Your task to perform on an android device: empty trash in the gmail app Image 0: 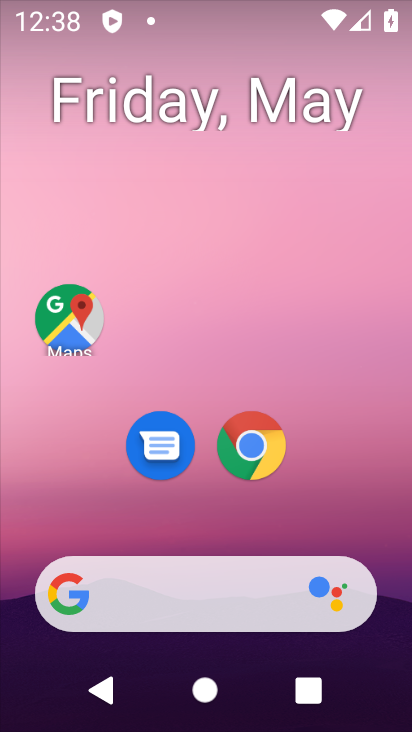
Step 0: drag from (396, 603) to (359, 76)
Your task to perform on an android device: empty trash in the gmail app Image 1: 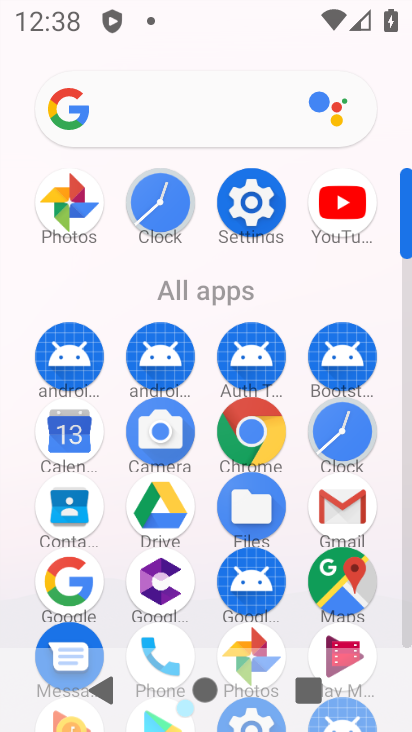
Step 1: click (407, 627)
Your task to perform on an android device: empty trash in the gmail app Image 2: 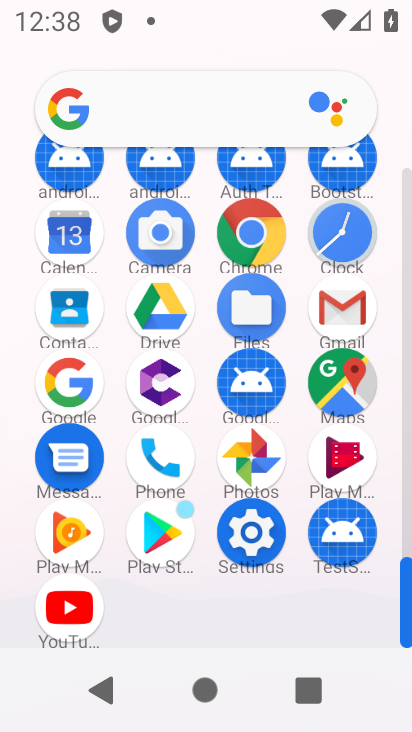
Step 2: click (340, 304)
Your task to perform on an android device: empty trash in the gmail app Image 3: 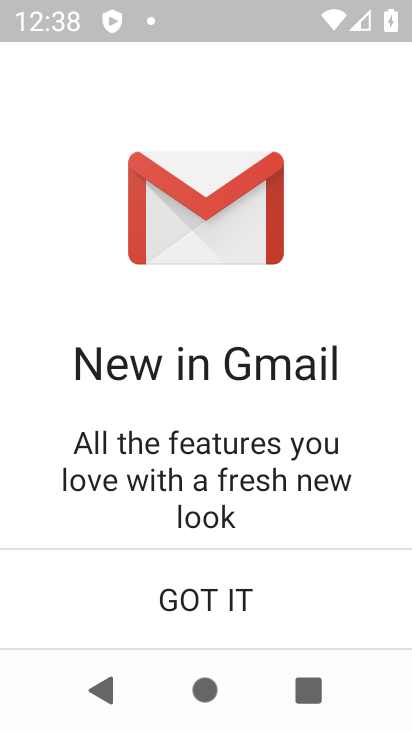
Step 3: click (182, 615)
Your task to perform on an android device: empty trash in the gmail app Image 4: 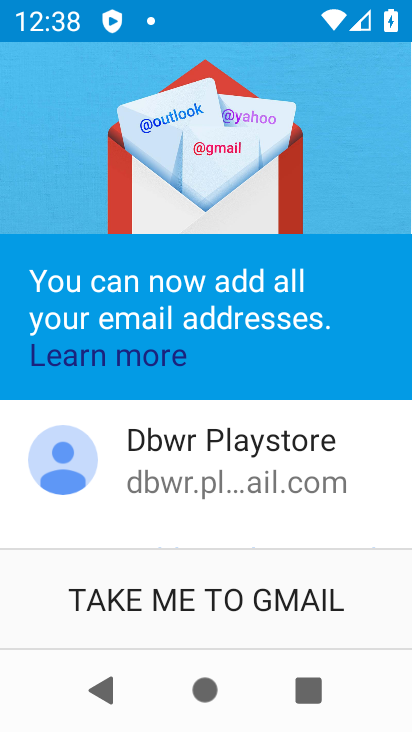
Step 4: click (182, 607)
Your task to perform on an android device: empty trash in the gmail app Image 5: 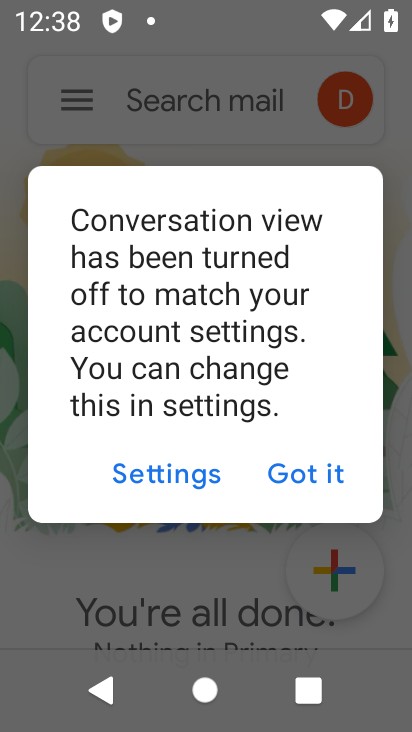
Step 5: click (311, 469)
Your task to perform on an android device: empty trash in the gmail app Image 6: 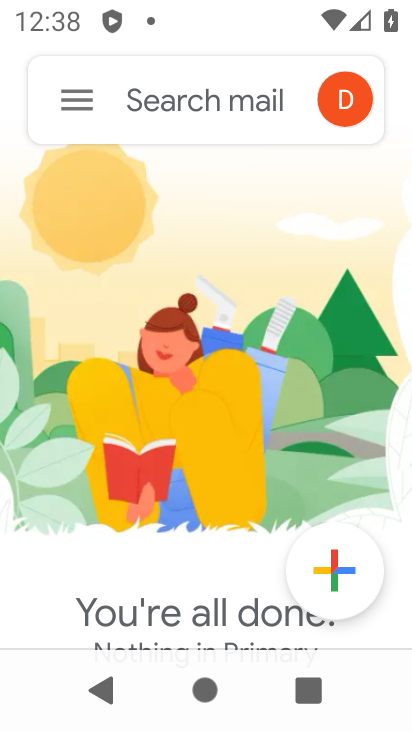
Step 6: click (68, 90)
Your task to perform on an android device: empty trash in the gmail app Image 7: 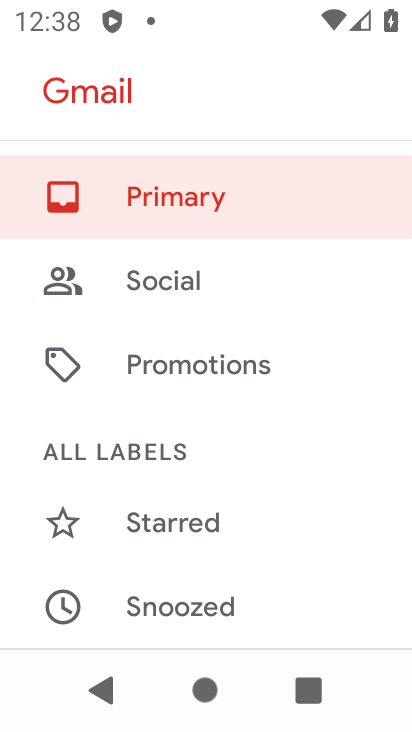
Step 7: drag from (296, 536) to (320, 78)
Your task to perform on an android device: empty trash in the gmail app Image 8: 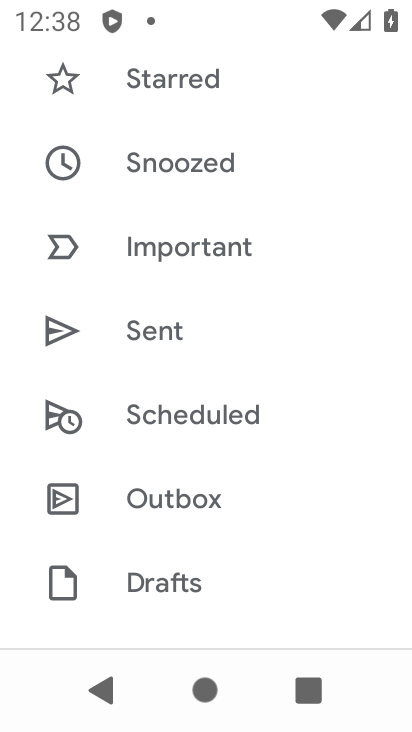
Step 8: drag from (277, 558) to (302, 115)
Your task to perform on an android device: empty trash in the gmail app Image 9: 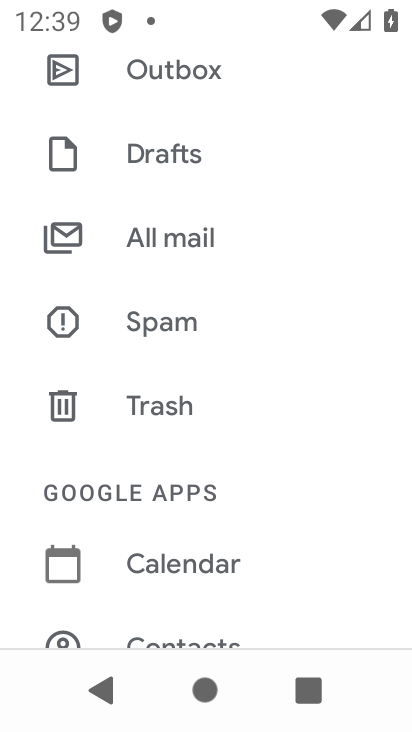
Step 9: click (143, 407)
Your task to perform on an android device: empty trash in the gmail app Image 10: 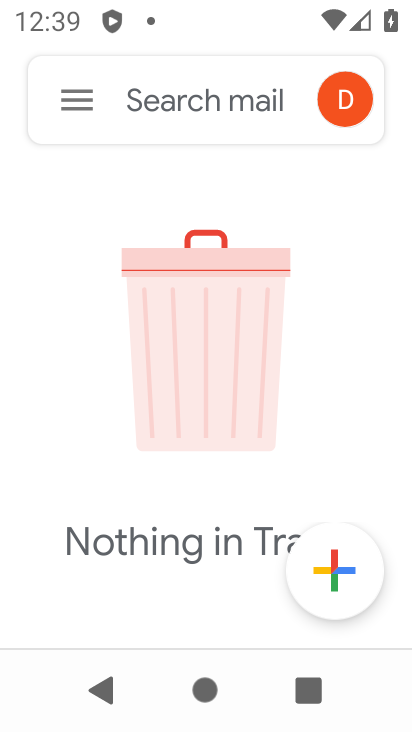
Step 10: task complete